Your task to perform on an android device: snooze an email in the gmail app Image 0: 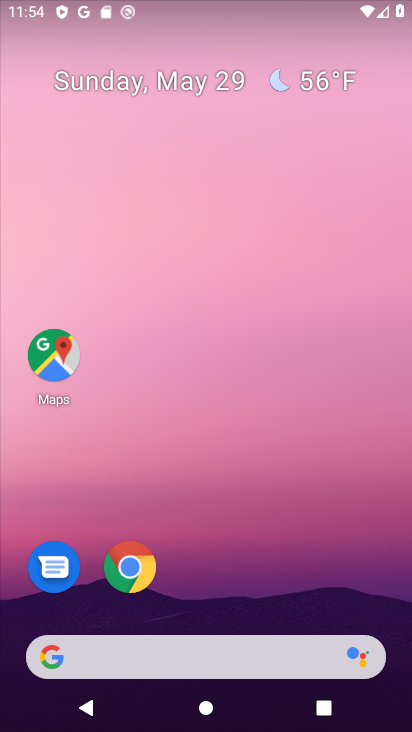
Step 0: drag from (204, 632) to (248, 127)
Your task to perform on an android device: snooze an email in the gmail app Image 1: 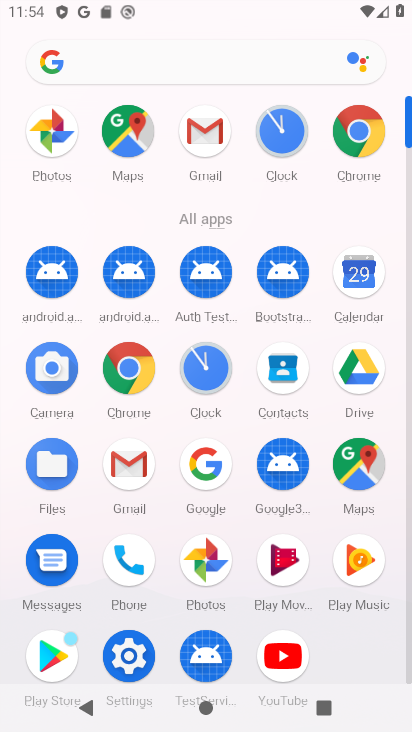
Step 1: click (121, 466)
Your task to perform on an android device: snooze an email in the gmail app Image 2: 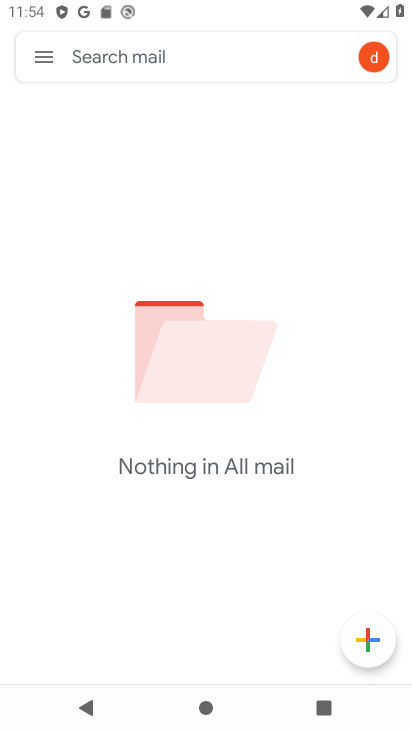
Step 2: task complete